Your task to perform on an android device: turn on translation in the chrome app Image 0: 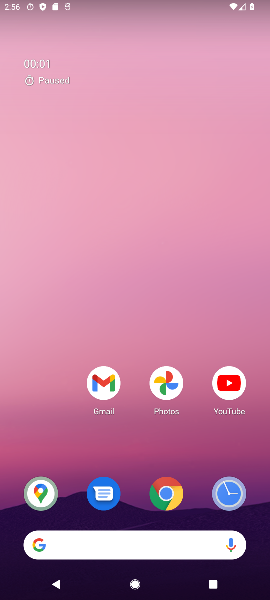
Step 0: click (158, 491)
Your task to perform on an android device: turn on translation in the chrome app Image 1: 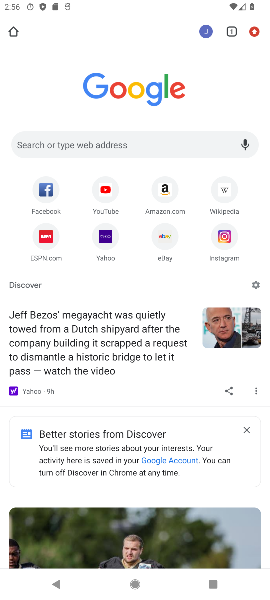
Step 1: click (252, 29)
Your task to perform on an android device: turn on translation in the chrome app Image 2: 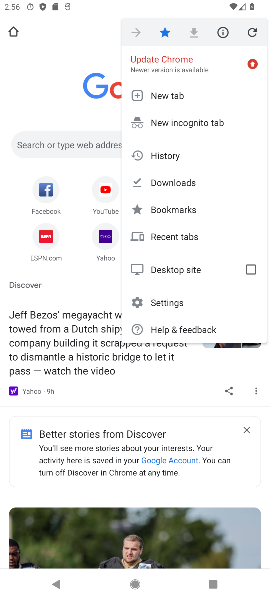
Step 2: click (167, 295)
Your task to perform on an android device: turn on translation in the chrome app Image 3: 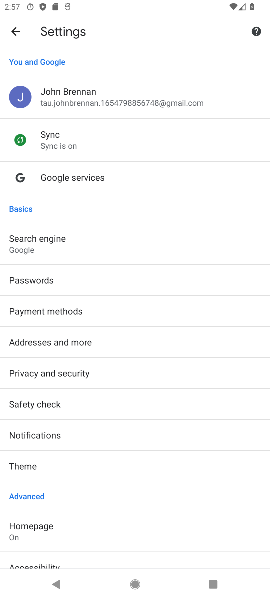
Step 3: drag from (95, 516) to (139, 297)
Your task to perform on an android device: turn on translation in the chrome app Image 4: 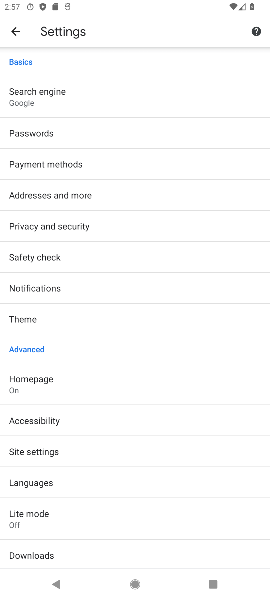
Step 4: click (33, 478)
Your task to perform on an android device: turn on translation in the chrome app Image 5: 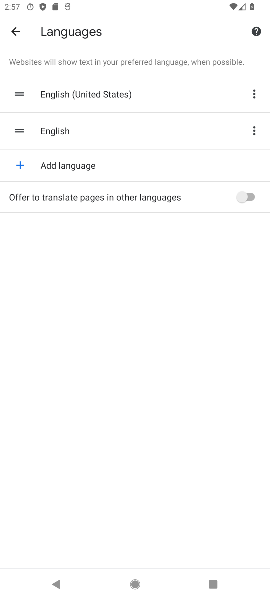
Step 5: click (213, 191)
Your task to perform on an android device: turn on translation in the chrome app Image 6: 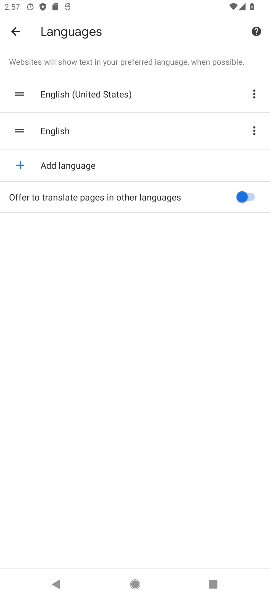
Step 6: click (243, 190)
Your task to perform on an android device: turn on translation in the chrome app Image 7: 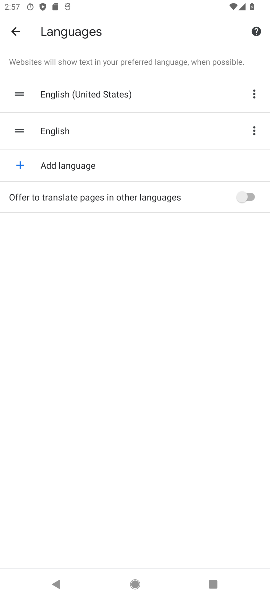
Step 7: task complete